Your task to perform on an android device: turn on data saver in the chrome app Image 0: 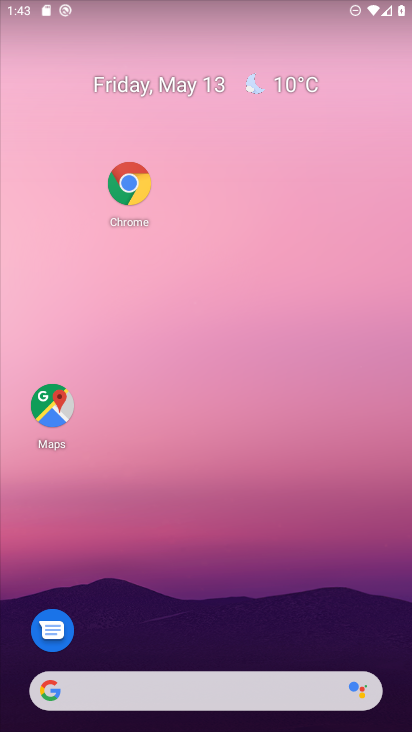
Step 0: click (125, 198)
Your task to perform on an android device: turn on data saver in the chrome app Image 1: 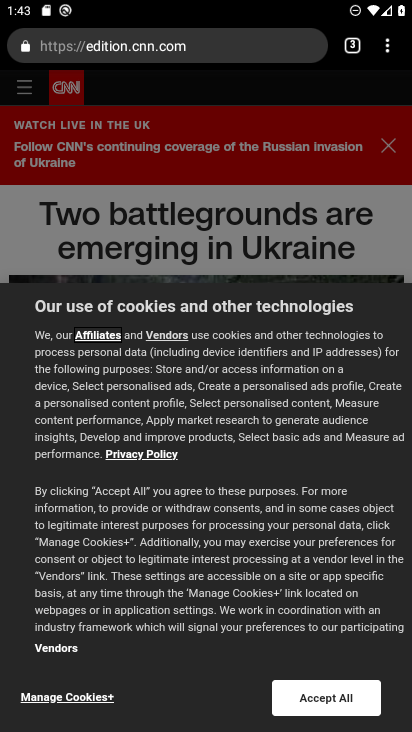
Step 1: click (376, 53)
Your task to perform on an android device: turn on data saver in the chrome app Image 2: 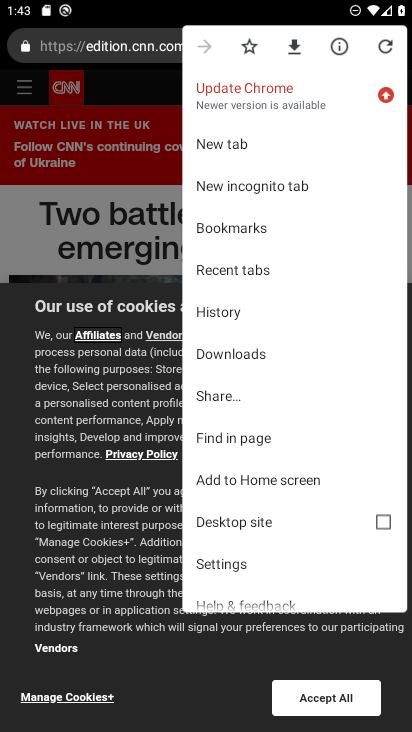
Step 2: click (219, 571)
Your task to perform on an android device: turn on data saver in the chrome app Image 3: 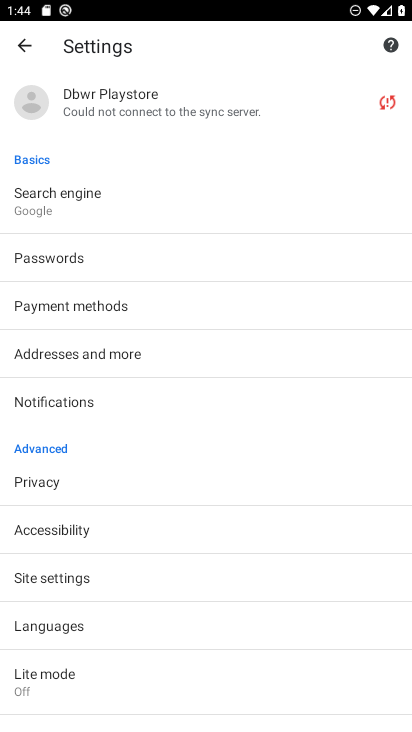
Step 3: click (59, 678)
Your task to perform on an android device: turn on data saver in the chrome app Image 4: 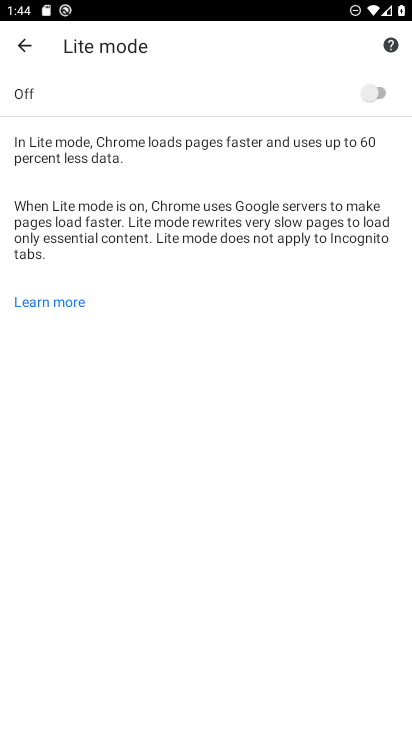
Step 4: click (372, 96)
Your task to perform on an android device: turn on data saver in the chrome app Image 5: 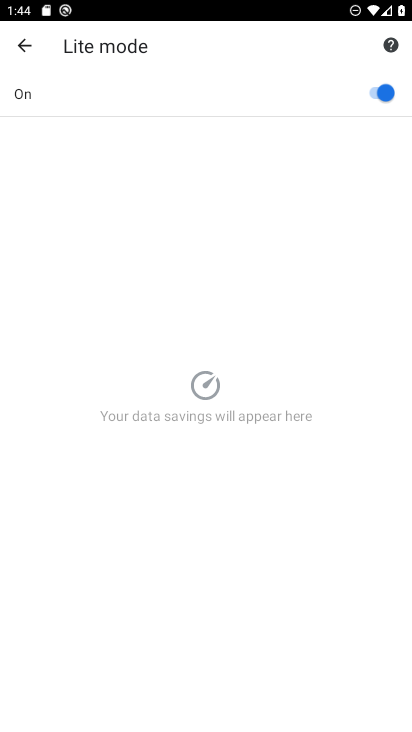
Step 5: task complete